Your task to perform on an android device: What's the weather? Image 0: 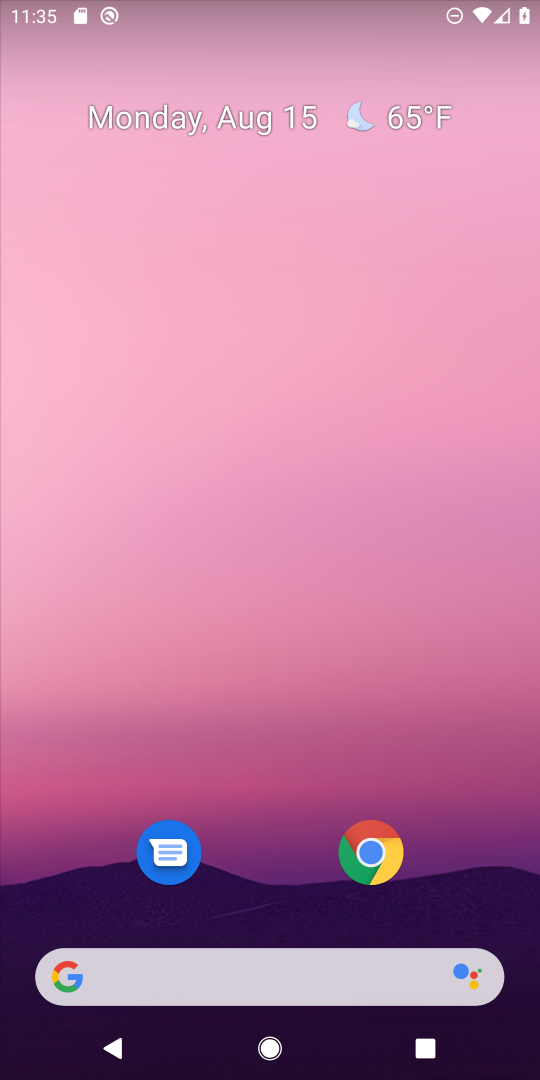
Step 0: click (227, 978)
Your task to perform on an android device: What's the weather? Image 1: 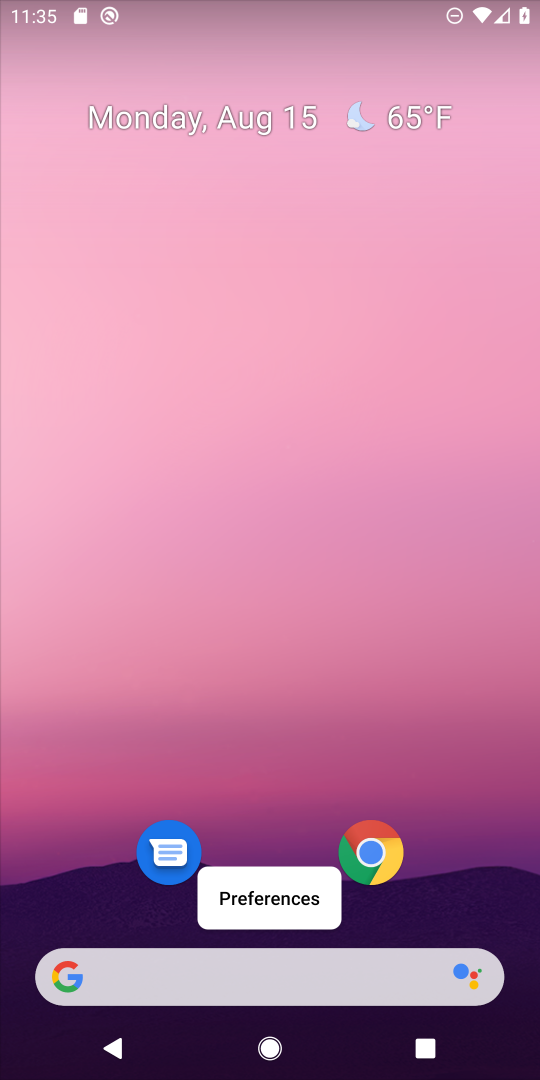
Step 1: click (258, 979)
Your task to perform on an android device: What's the weather? Image 2: 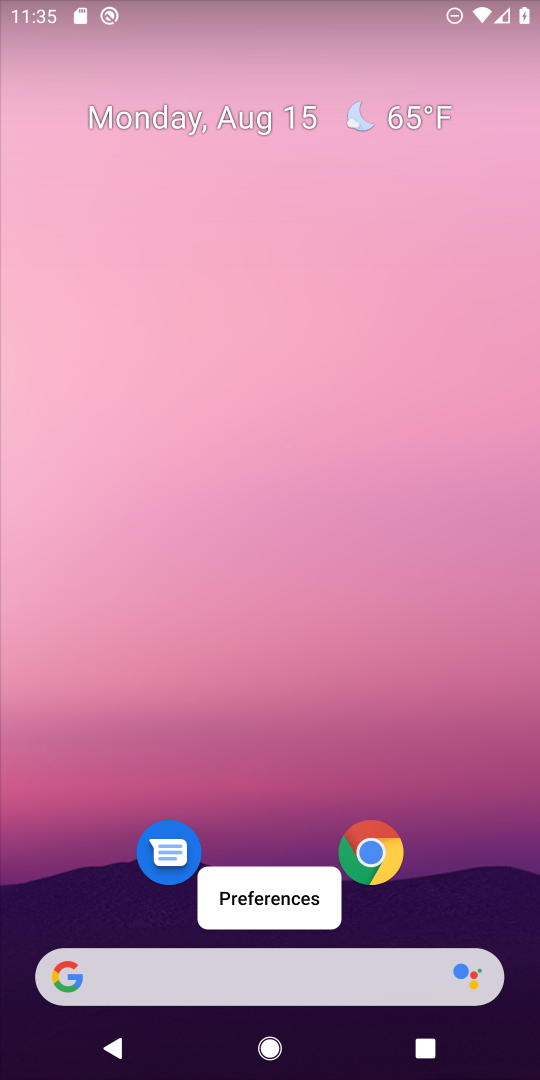
Step 2: click (235, 972)
Your task to perform on an android device: What's the weather? Image 3: 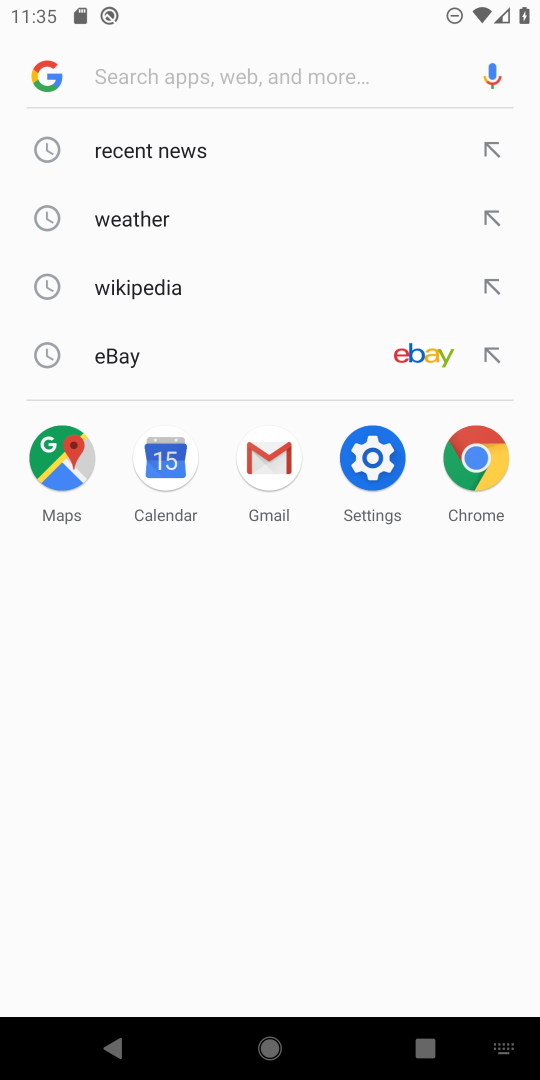
Step 3: click (146, 213)
Your task to perform on an android device: What's the weather? Image 4: 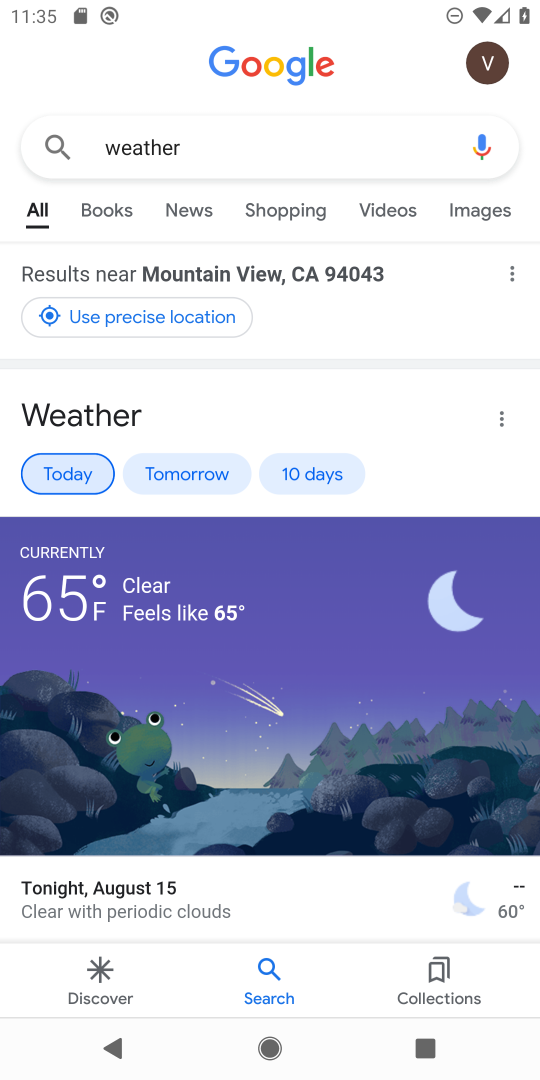
Step 4: task complete